Your task to perform on an android device: turn vacation reply on in the gmail app Image 0: 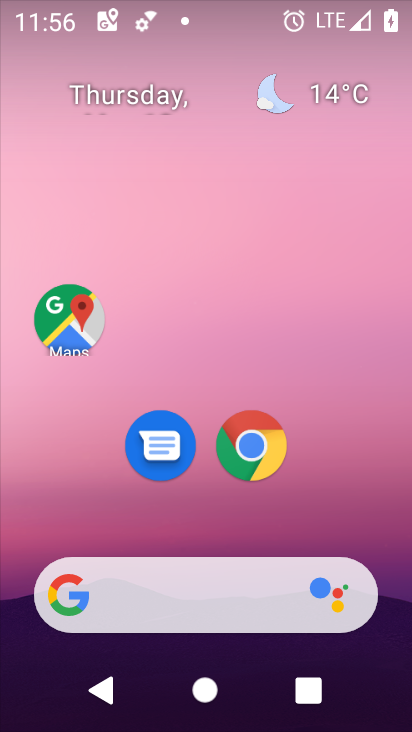
Step 0: drag from (184, 543) to (235, 151)
Your task to perform on an android device: turn vacation reply on in the gmail app Image 1: 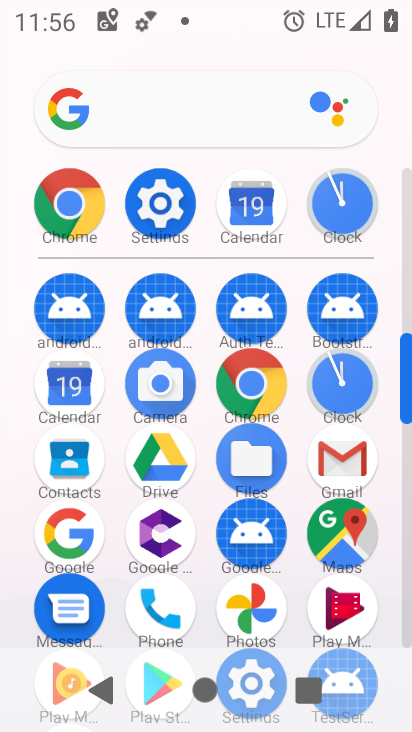
Step 1: click (335, 481)
Your task to perform on an android device: turn vacation reply on in the gmail app Image 2: 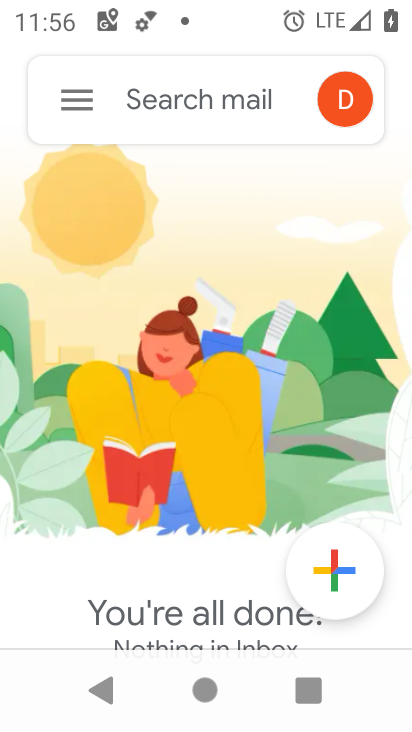
Step 2: click (79, 108)
Your task to perform on an android device: turn vacation reply on in the gmail app Image 3: 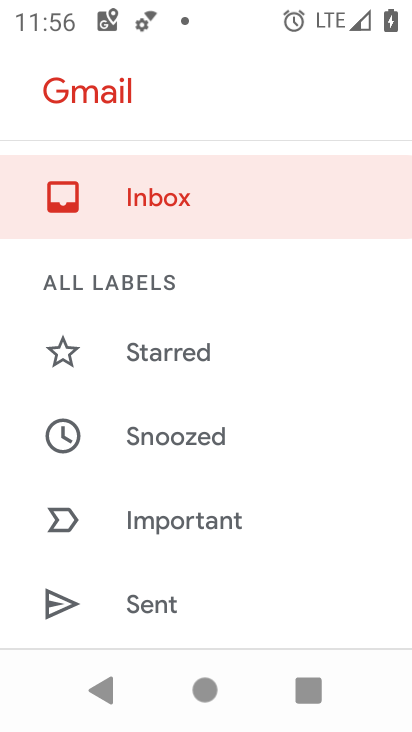
Step 3: drag from (159, 514) to (121, 83)
Your task to perform on an android device: turn vacation reply on in the gmail app Image 4: 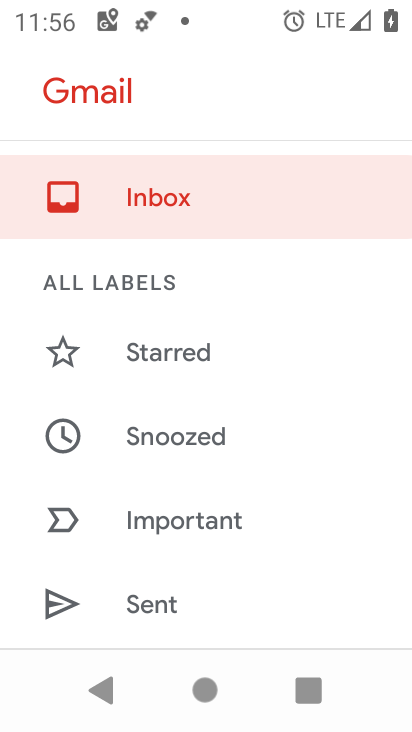
Step 4: drag from (141, 517) to (126, 105)
Your task to perform on an android device: turn vacation reply on in the gmail app Image 5: 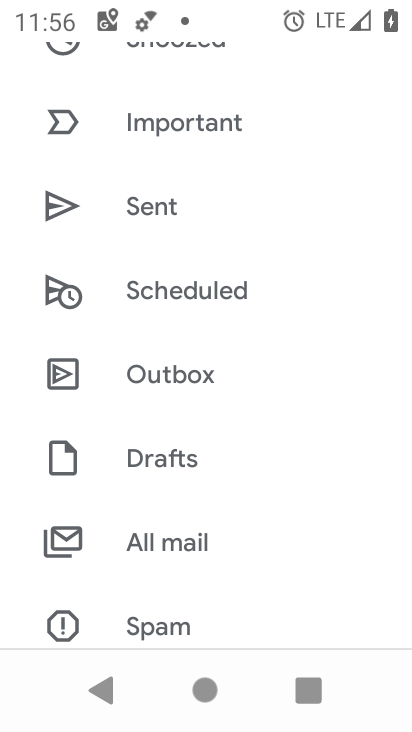
Step 5: drag from (170, 523) to (134, 53)
Your task to perform on an android device: turn vacation reply on in the gmail app Image 6: 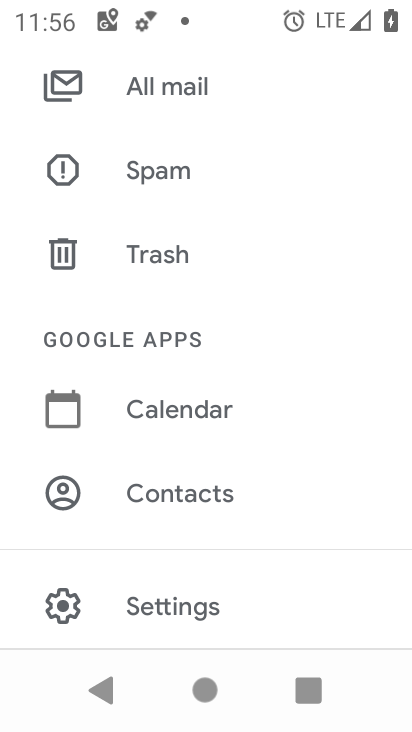
Step 6: click (210, 595)
Your task to perform on an android device: turn vacation reply on in the gmail app Image 7: 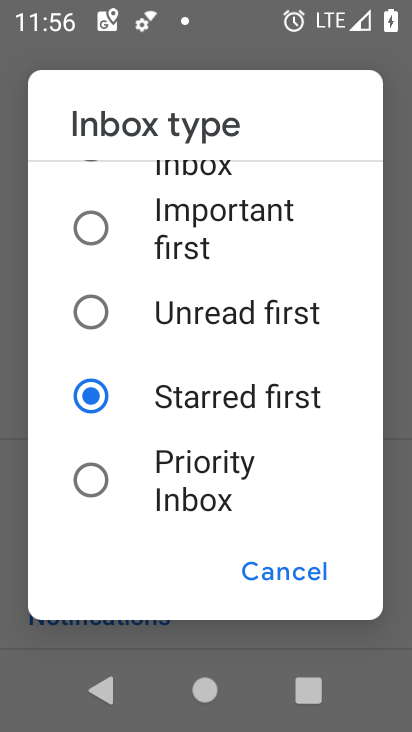
Step 7: click (295, 587)
Your task to perform on an android device: turn vacation reply on in the gmail app Image 8: 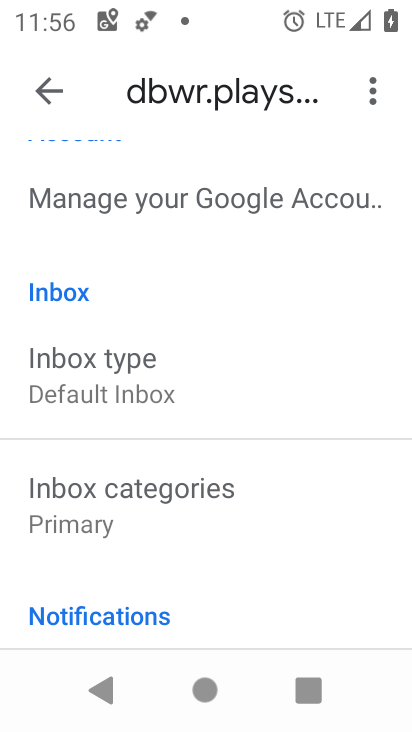
Step 8: drag from (295, 587) to (311, 213)
Your task to perform on an android device: turn vacation reply on in the gmail app Image 9: 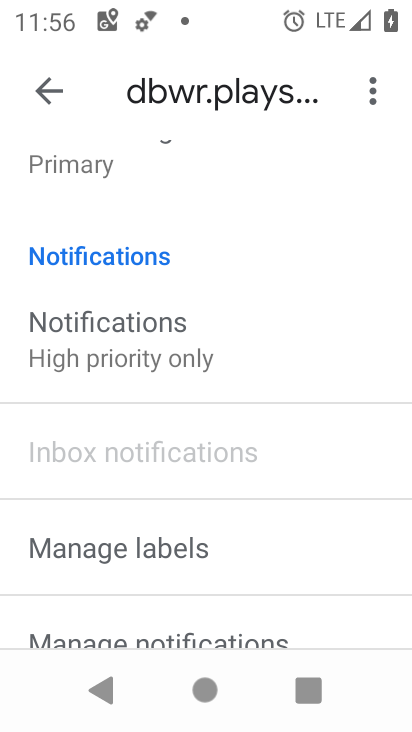
Step 9: drag from (279, 592) to (203, 181)
Your task to perform on an android device: turn vacation reply on in the gmail app Image 10: 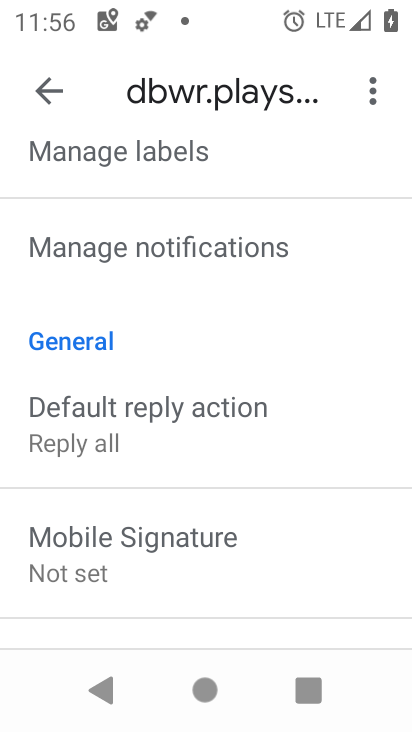
Step 10: drag from (232, 606) to (196, 253)
Your task to perform on an android device: turn vacation reply on in the gmail app Image 11: 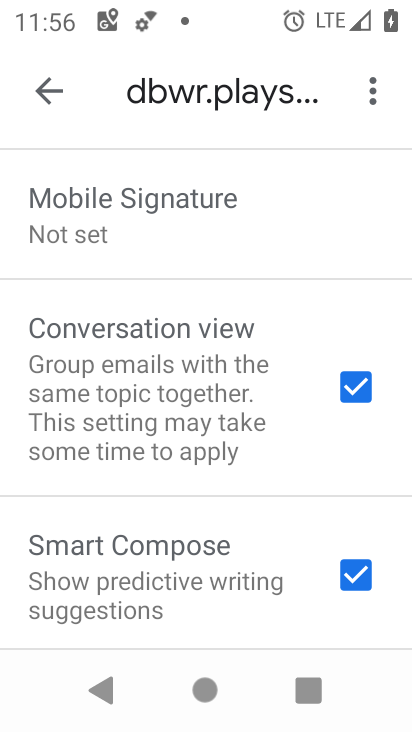
Step 11: drag from (263, 557) to (211, 123)
Your task to perform on an android device: turn vacation reply on in the gmail app Image 12: 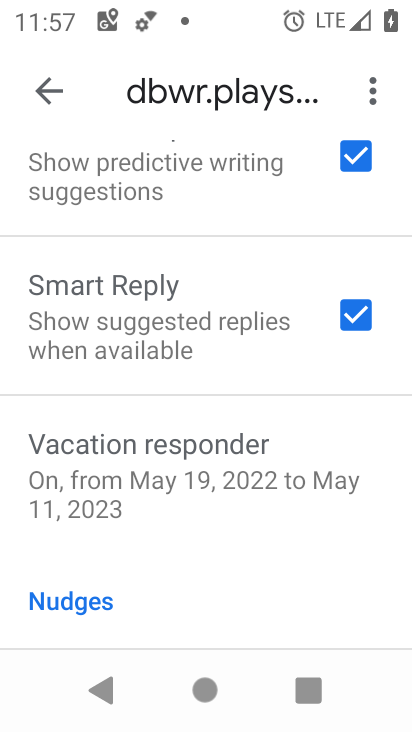
Step 12: click (222, 504)
Your task to perform on an android device: turn vacation reply on in the gmail app Image 13: 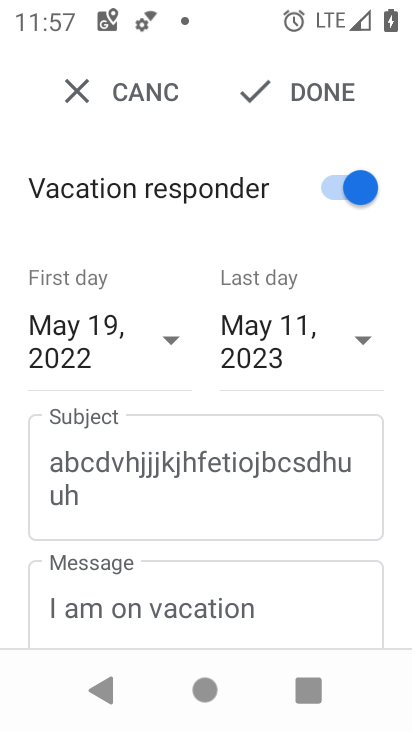
Step 13: click (326, 95)
Your task to perform on an android device: turn vacation reply on in the gmail app Image 14: 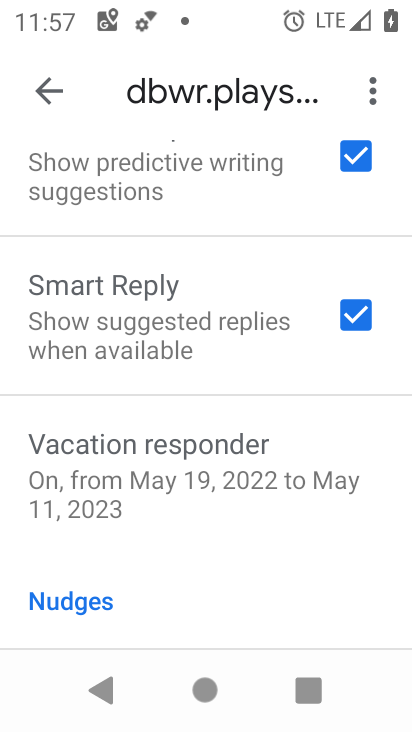
Step 14: task complete